Your task to perform on an android device: See recent photos Image 0: 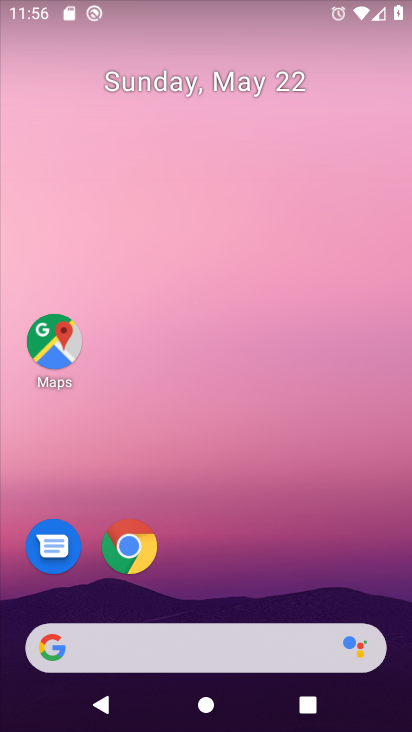
Step 0: drag from (263, 640) to (346, 55)
Your task to perform on an android device: See recent photos Image 1: 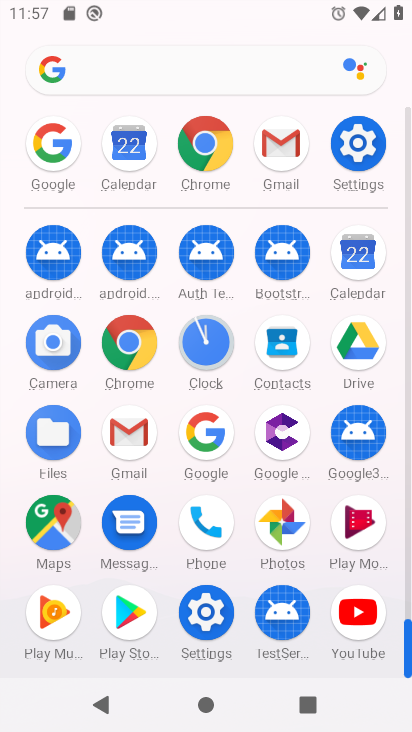
Step 1: click (273, 529)
Your task to perform on an android device: See recent photos Image 2: 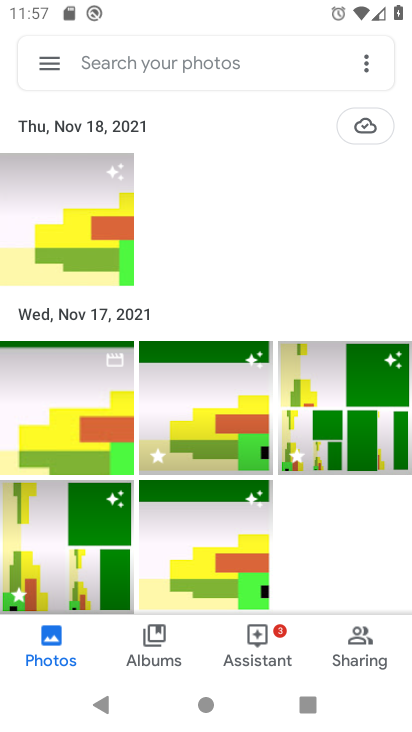
Step 2: task complete